Your task to perform on an android device: toggle data saver in the chrome app Image 0: 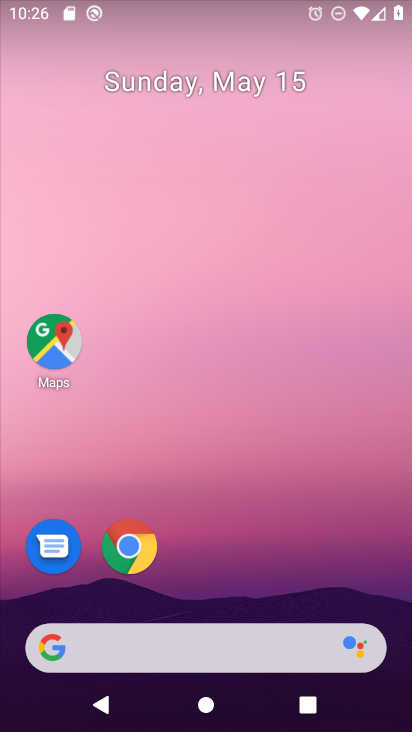
Step 0: click (137, 541)
Your task to perform on an android device: toggle data saver in the chrome app Image 1: 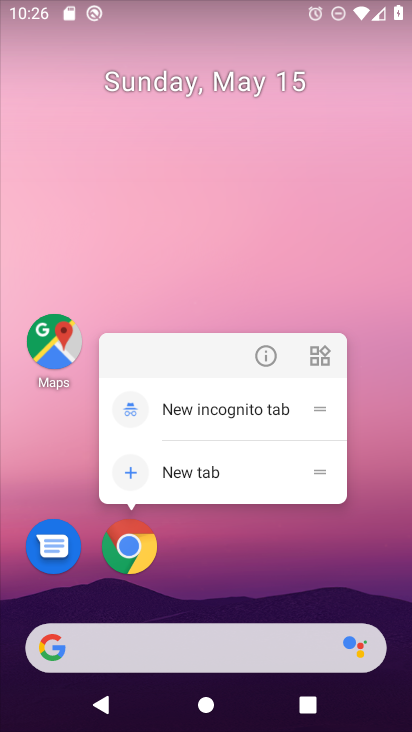
Step 1: click (137, 541)
Your task to perform on an android device: toggle data saver in the chrome app Image 2: 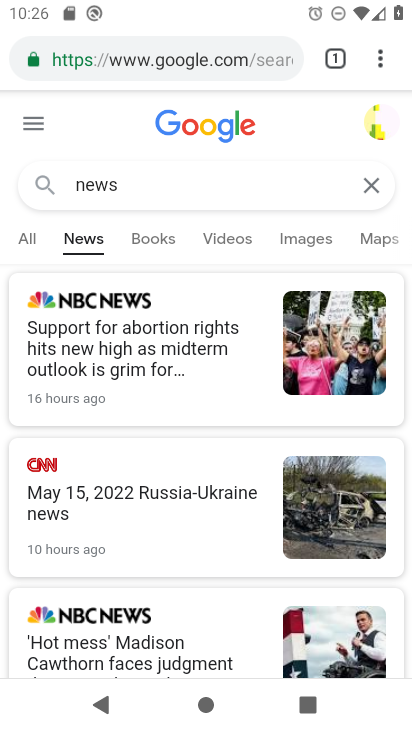
Step 2: drag from (383, 64) to (218, 578)
Your task to perform on an android device: toggle data saver in the chrome app Image 3: 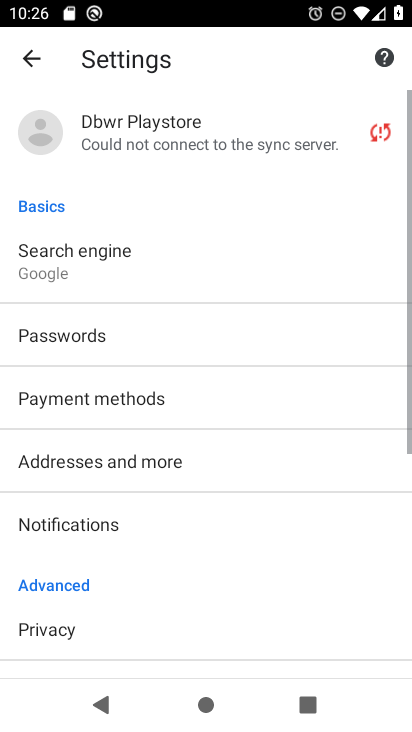
Step 3: drag from (217, 574) to (344, 108)
Your task to perform on an android device: toggle data saver in the chrome app Image 4: 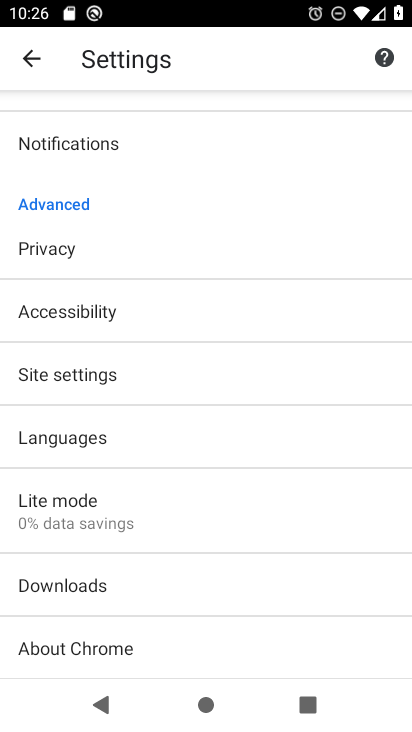
Step 4: click (80, 501)
Your task to perform on an android device: toggle data saver in the chrome app Image 5: 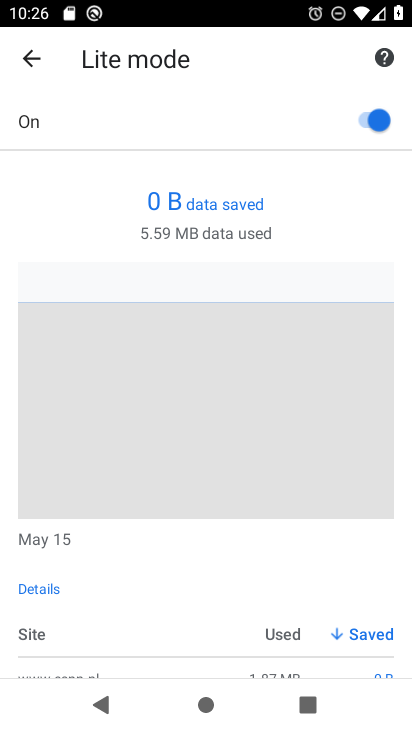
Step 5: click (370, 109)
Your task to perform on an android device: toggle data saver in the chrome app Image 6: 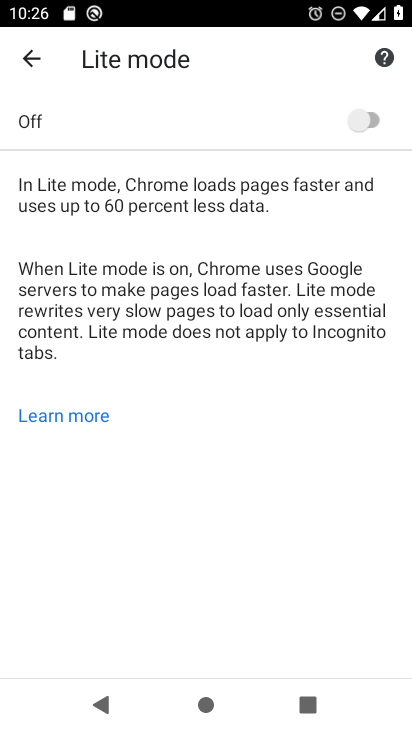
Step 6: task complete